Your task to perform on an android device: Open the phone app and click the voicemail tab. Image 0: 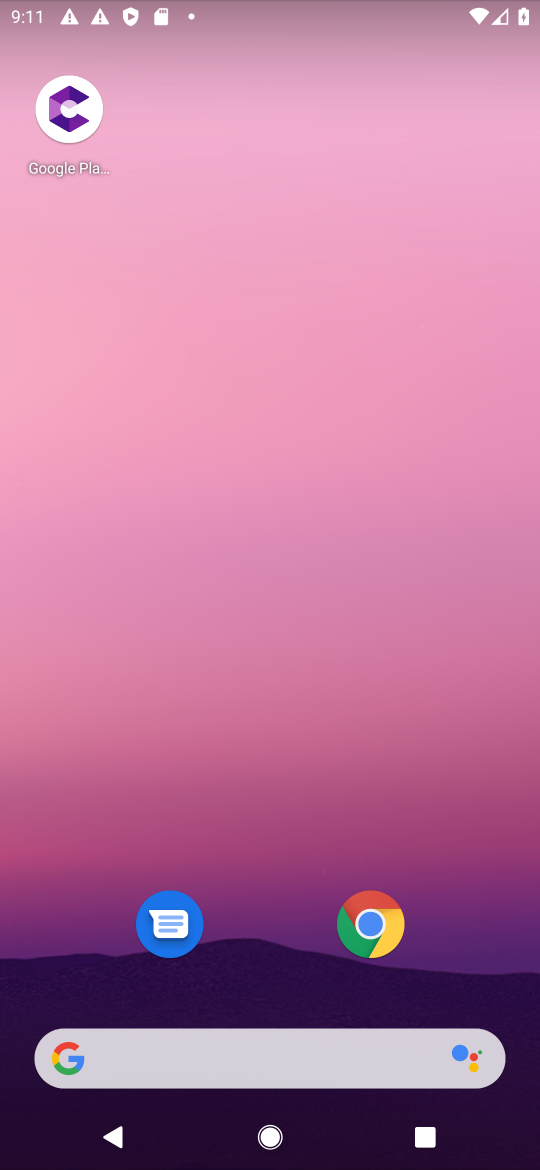
Step 0: drag from (248, 936) to (441, 114)
Your task to perform on an android device: Open the phone app and click the voicemail tab. Image 1: 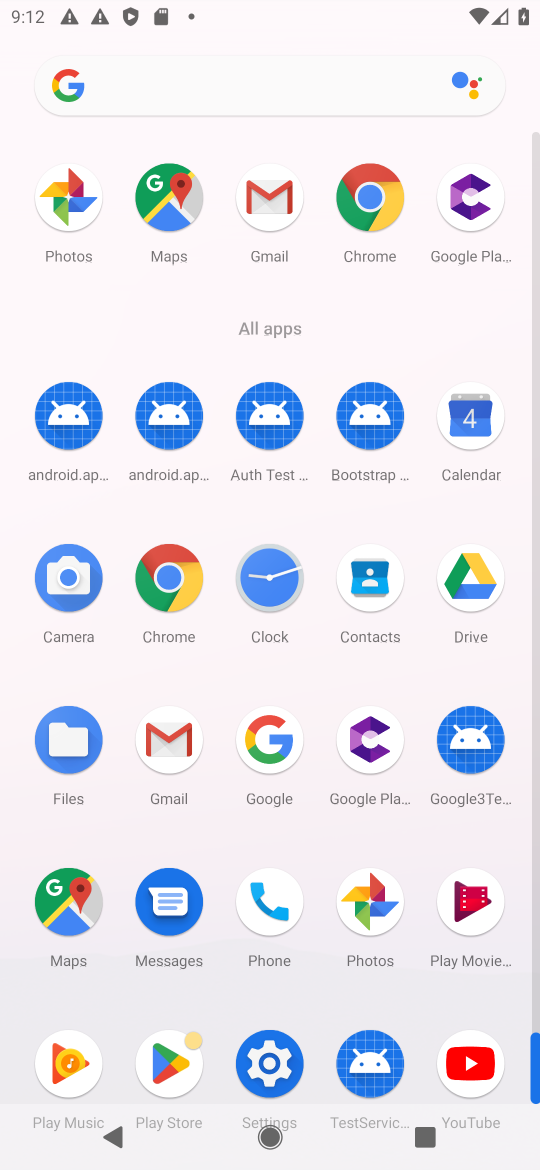
Step 1: click (251, 884)
Your task to perform on an android device: Open the phone app and click the voicemail tab. Image 2: 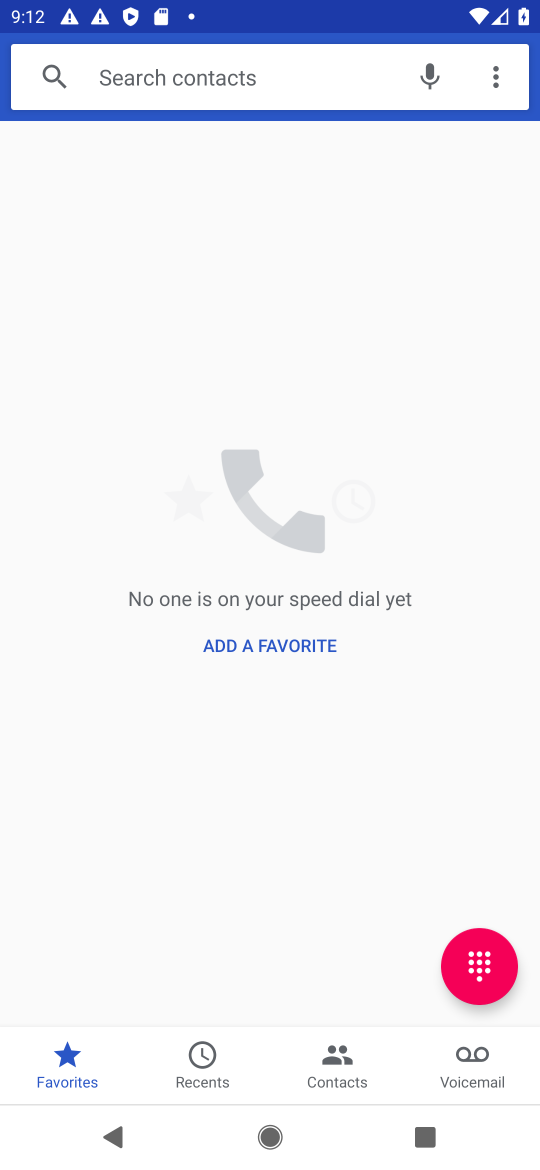
Step 2: click (467, 1059)
Your task to perform on an android device: Open the phone app and click the voicemail tab. Image 3: 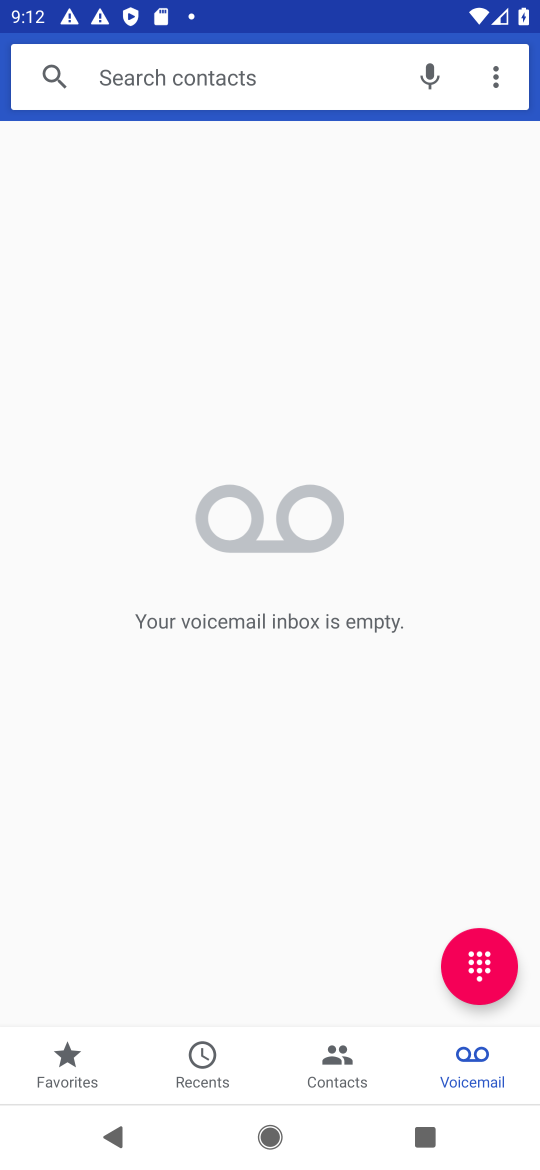
Step 3: task complete